Your task to perform on an android device: Open Android settings Image 0: 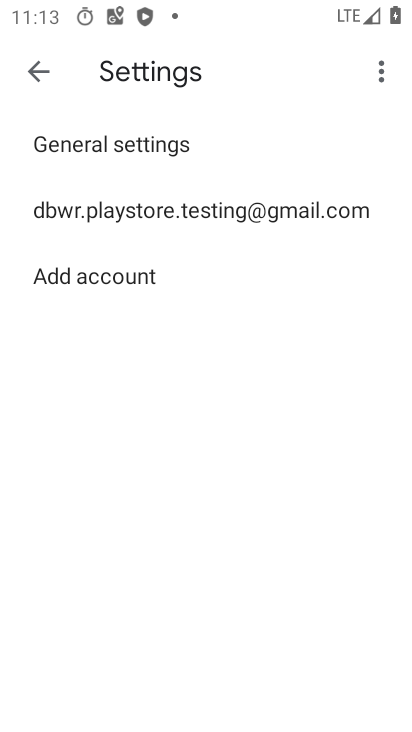
Step 0: press home button
Your task to perform on an android device: Open Android settings Image 1: 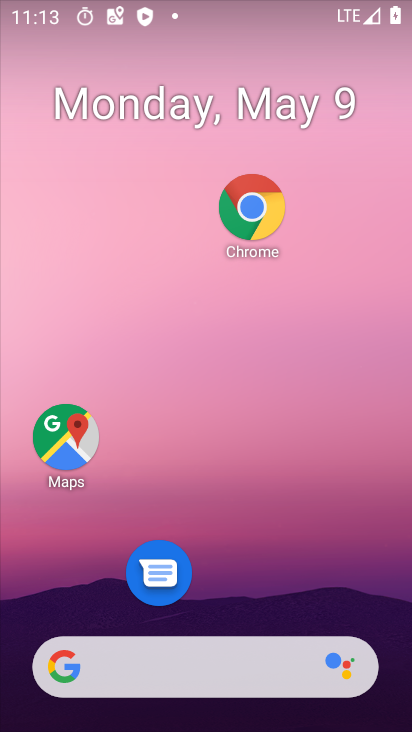
Step 1: drag from (310, 607) to (383, 176)
Your task to perform on an android device: Open Android settings Image 2: 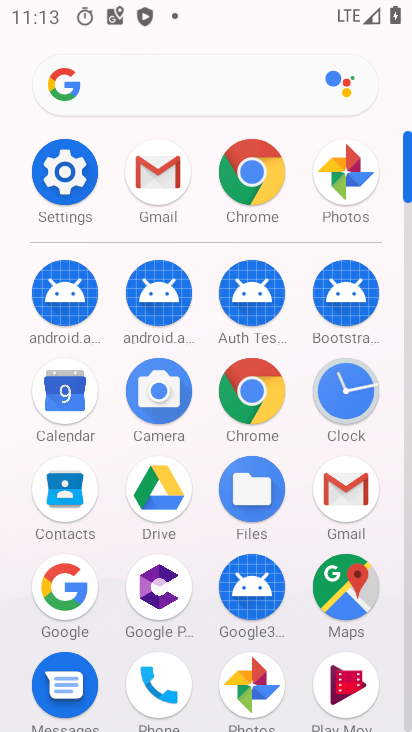
Step 2: click (79, 177)
Your task to perform on an android device: Open Android settings Image 3: 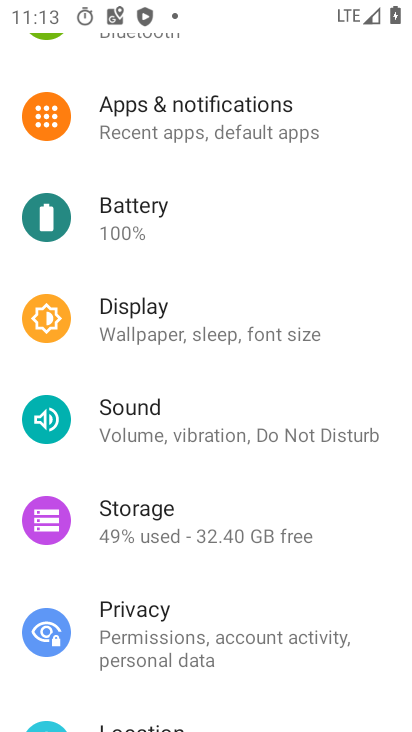
Step 3: drag from (180, 460) to (249, 221)
Your task to perform on an android device: Open Android settings Image 4: 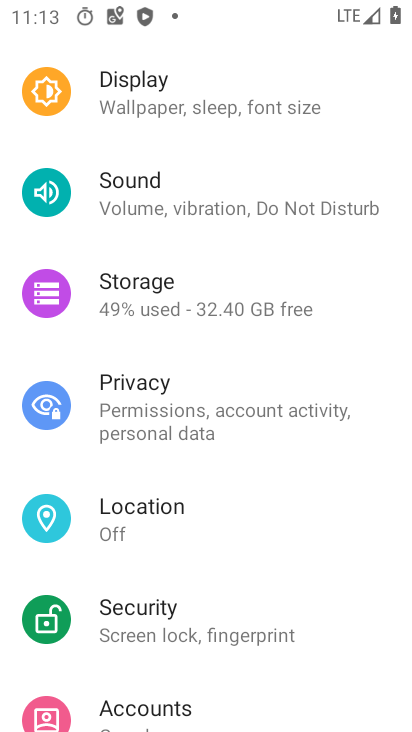
Step 4: drag from (186, 502) to (272, 198)
Your task to perform on an android device: Open Android settings Image 5: 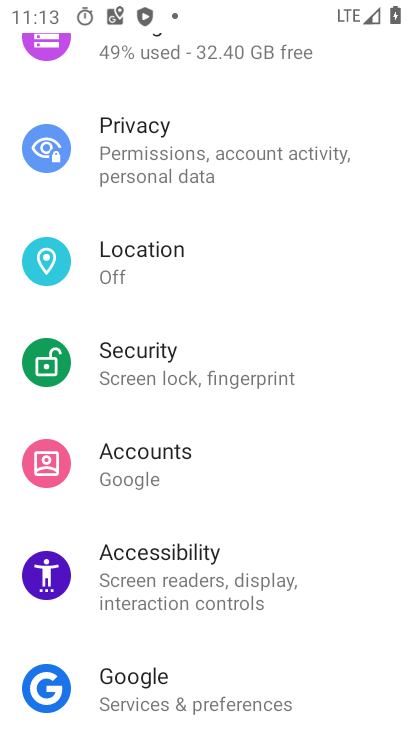
Step 5: drag from (179, 479) to (262, 21)
Your task to perform on an android device: Open Android settings Image 6: 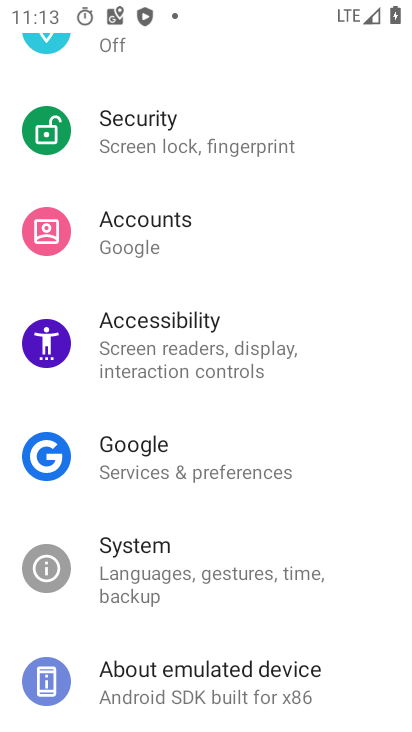
Step 6: drag from (222, 403) to (210, 93)
Your task to perform on an android device: Open Android settings Image 7: 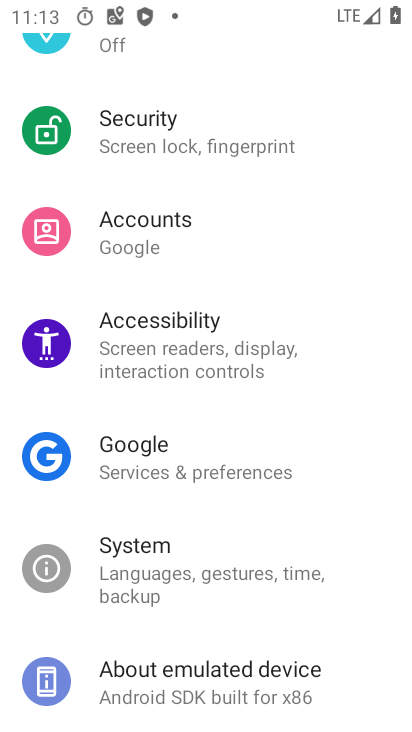
Step 7: click (94, 684)
Your task to perform on an android device: Open Android settings Image 8: 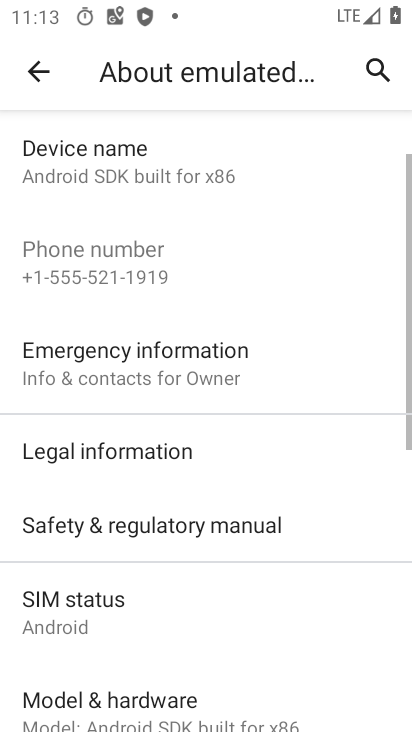
Step 8: drag from (233, 654) to (271, 555)
Your task to perform on an android device: Open Android settings Image 9: 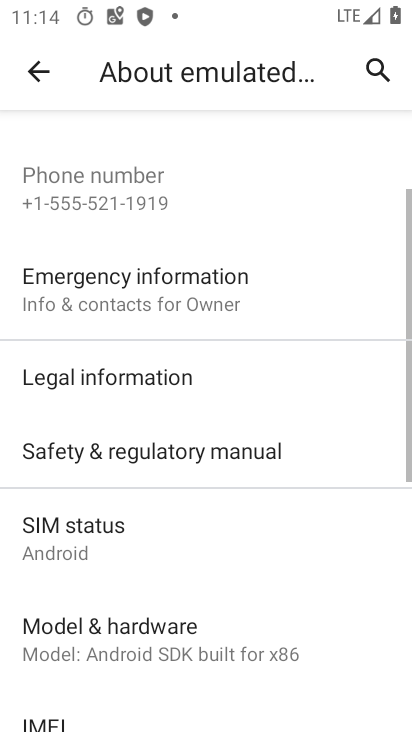
Step 9: drag from (222, 637) to (293, 392)
Your task to perform on an android device: Open Android settings Image 10: 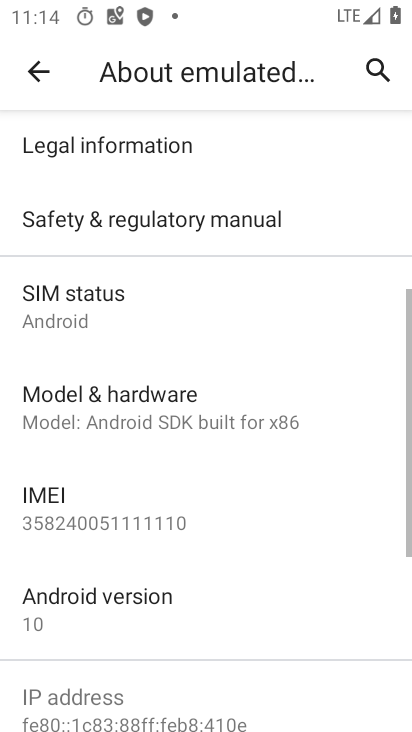
Step 10: click (147, 590)
Your task to perform on an android device: Open Android settings Image 11: 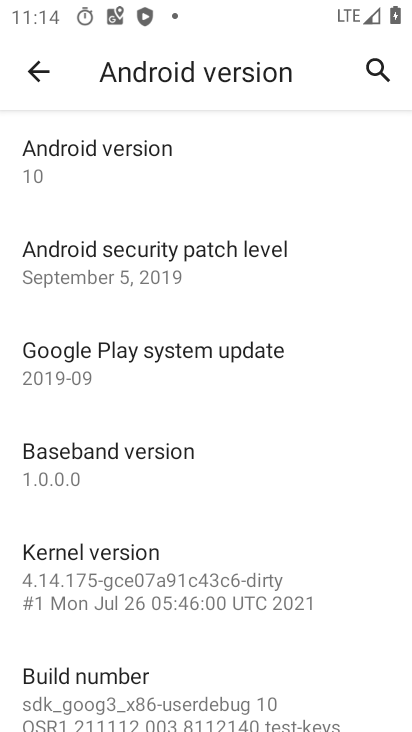
Step 11: task complete